Your task to perform on an android device: Go to internet settings Image 0: 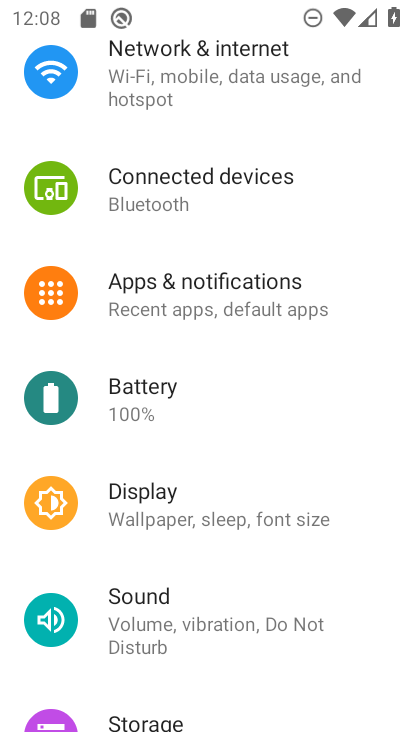
Step 0: click (267, 92)
Your task to perform on an android device: Go to internet settings Image 1: 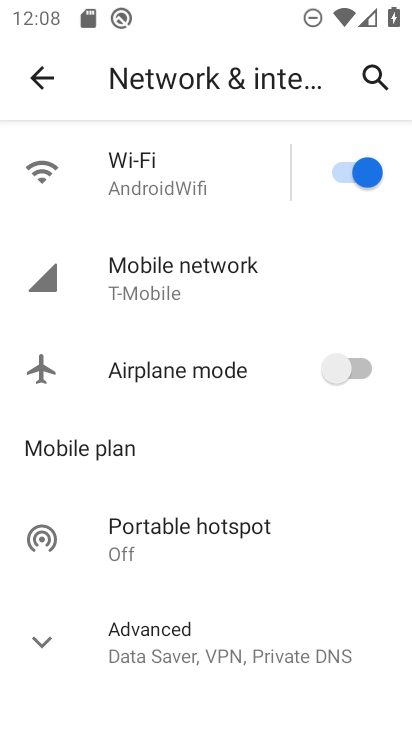
Step 1: task complete